Your task to perform on an android device: check android version Image 0: 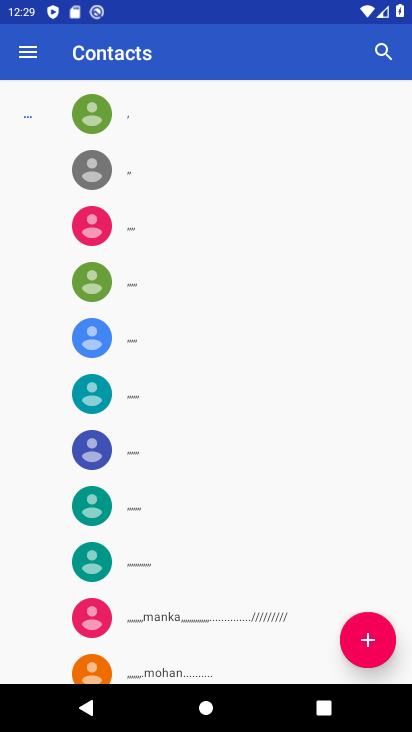
Step 0: press home button
Your task to perform on an android device: check android version Image 1: 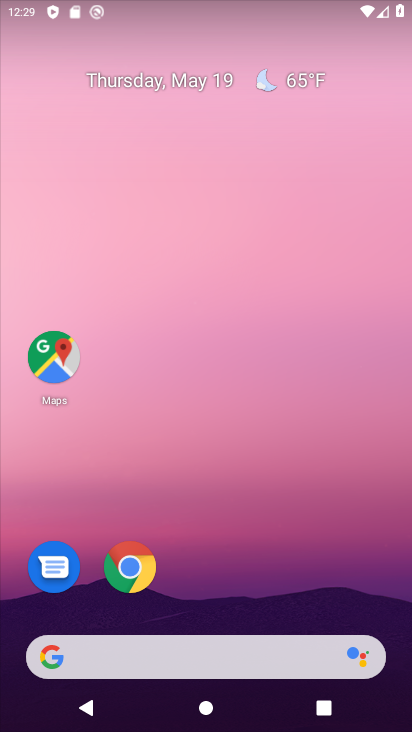
Step 1: drag from (315, 561) to (328, 75)
Your task to perform on an android device: check android version Image 2: 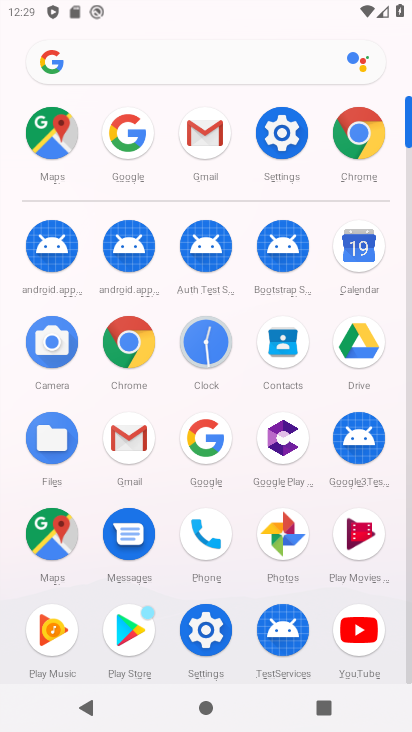
Step 2: click (295, 137)
Your task to perform on an android device: check android version Image 3: 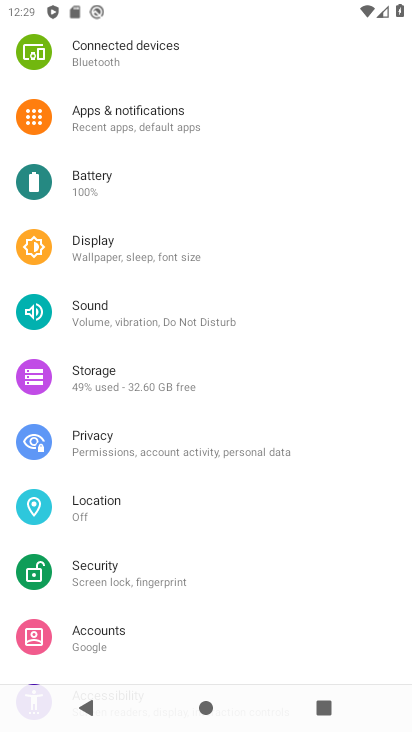
Step 3: drag from (257, 620) to (253, 178)
Your task to perform on an android device: check android version Image 4: 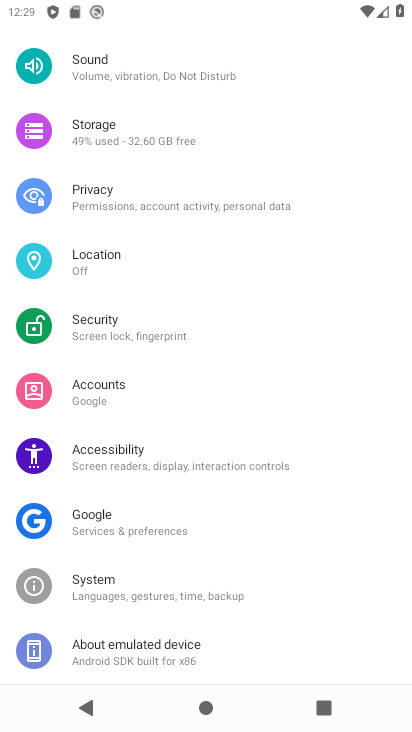
Step 4: click (179, 654)
Your task to perform on an android device: check android version Image 5: 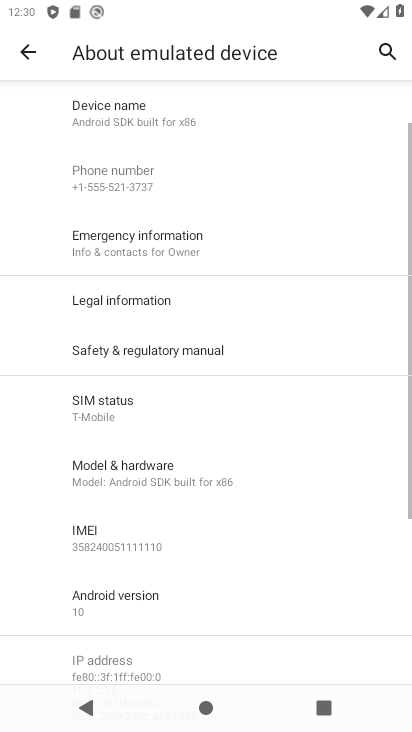
Step 5: click (139, 604)
Your task to perform on an android device: check android version Image 6: 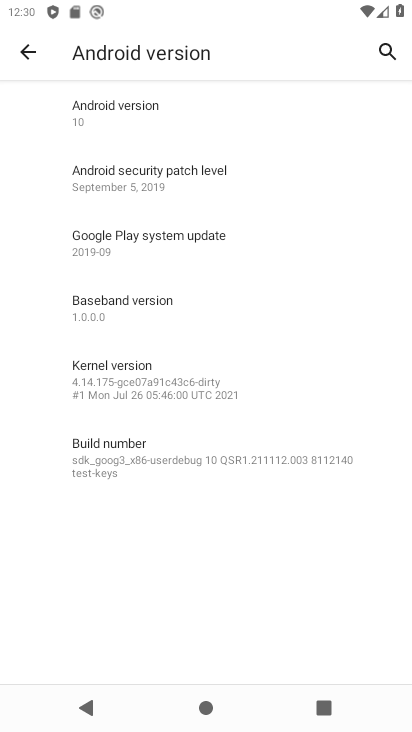
Step 6: task complete